Your task to perform on an android device: Open Android settings Image 0: 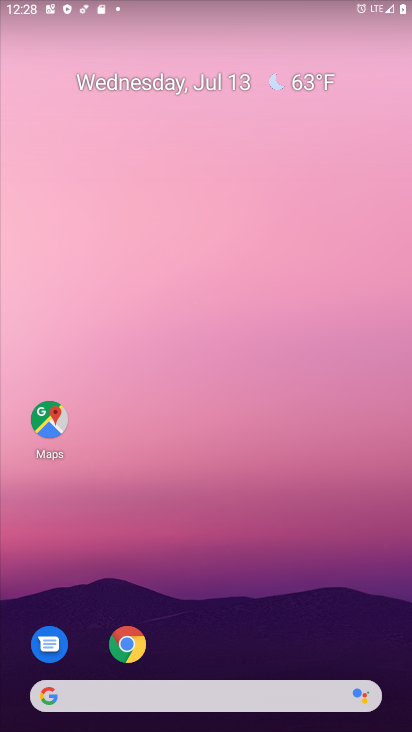
Step 0: drag from (178, 677) to (196, 88)
Your task to perform on an android device: Open Android settings Image 1: 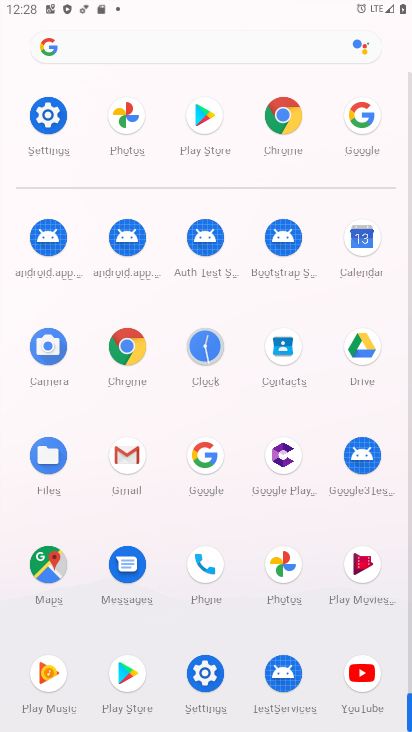
Step 1: click (48, 115)
Your task to perform on an android device: Open Android settings Image 2: 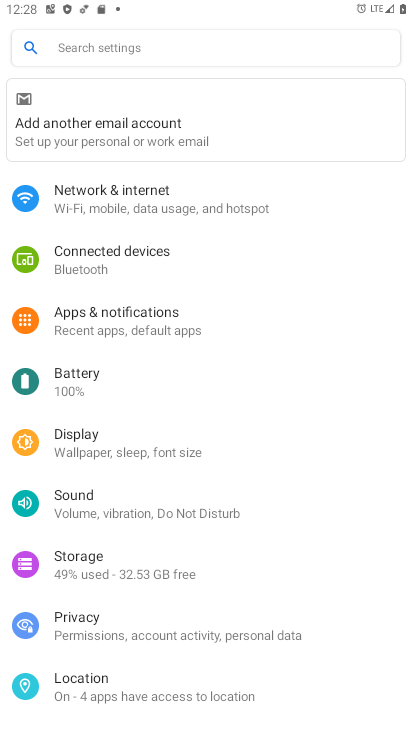
Step 2: task complete